Your task to perform on an android device: Go to internet settings Image 0: 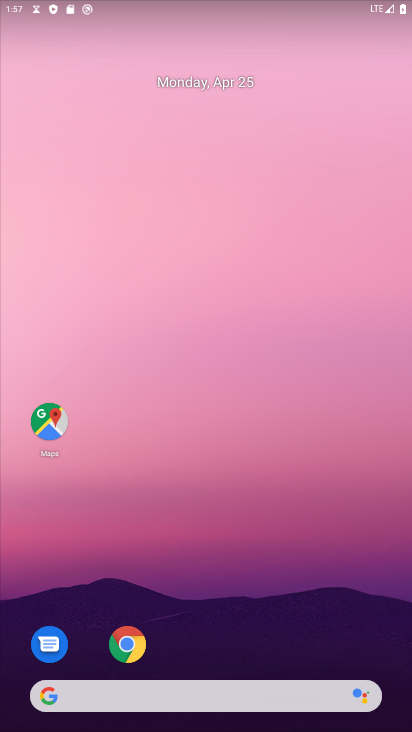
Step 0: drag from (369, 612) to (389, 74)
Your task to perform on an android device: Go to internet settings Image 1: 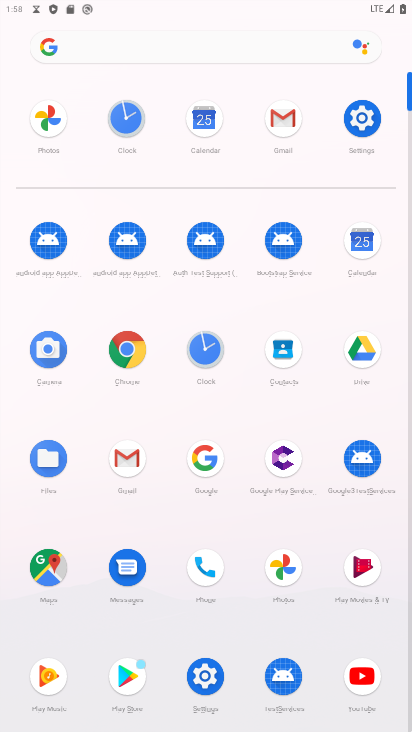
Step 1: click (364, 128)
Your task to perform on an android device: Go to internet settings Image 2: 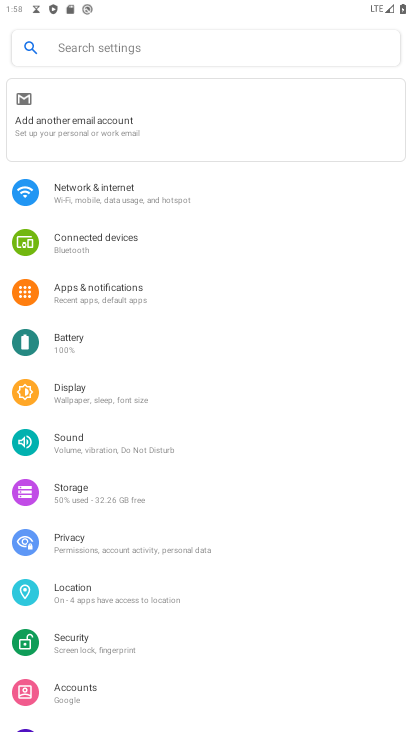
Step 2: click (103, 189)
Your task to perform on an android device: Go to internet settings Image 3: 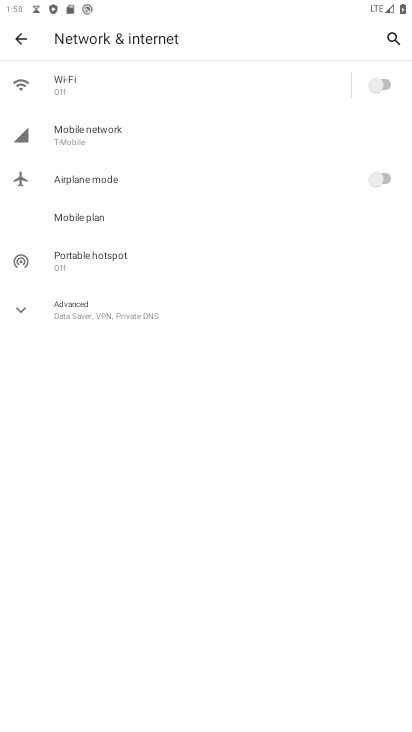
Step 3: click (27, 308)
Your task to perform on an android device: Go to internet settings Image 4: 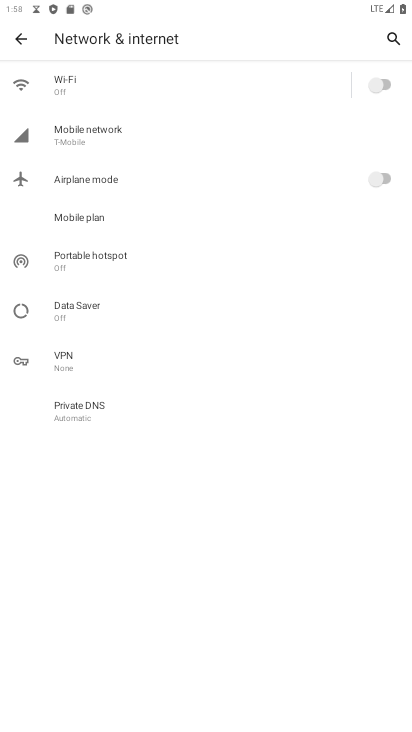
Step 4: task complete